Your task to perform on an android device: Open sound settings Image 0: 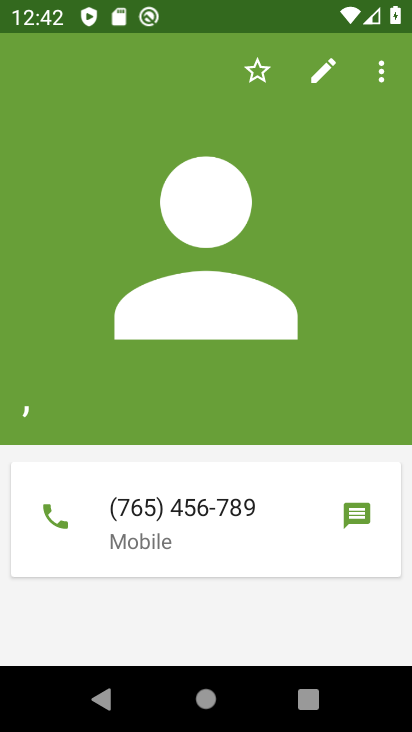
Step 0: press home button
Your task to perform on an android device: Open sound settings Image 1: 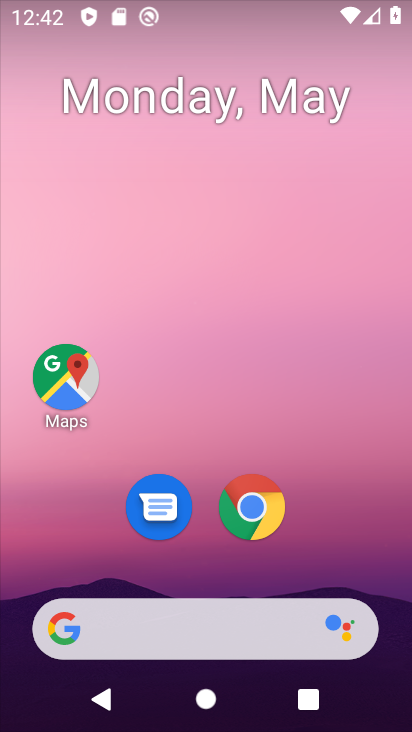
Step 1: drag from (228, 723) to (231, 146)
Your task to perform on an android device: Open sound settings Image 2: 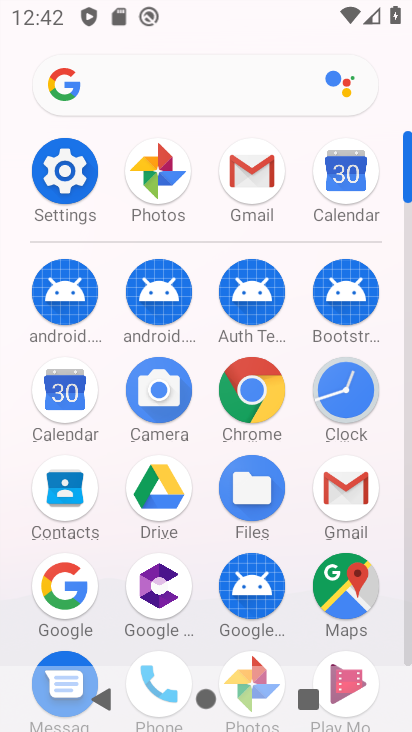
Step 2: click (72, 169)
Your task to perform on an android device: Open sound settings Image 3: 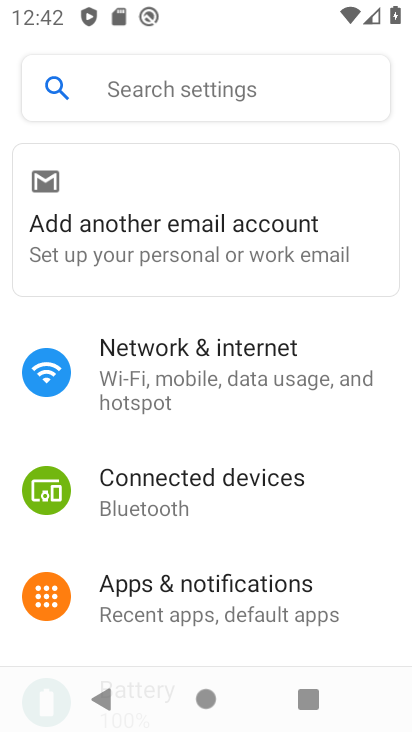
Step 3: drag from (185, 654) to (185, 133)
Your task to perform on an android device: Open sound settings Image 4: 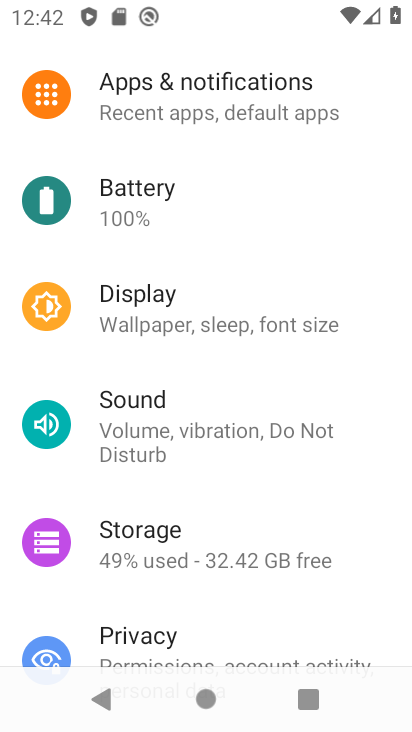
Step 4: click (135, 419)
Your task to perform on an android device: Open sound settings Image 5: 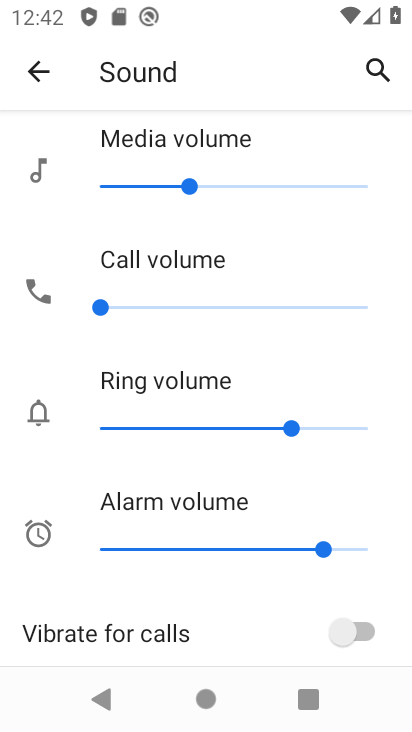
Step 5: task complete